Your task to perform on an android device: turn notification dots off Image 0: 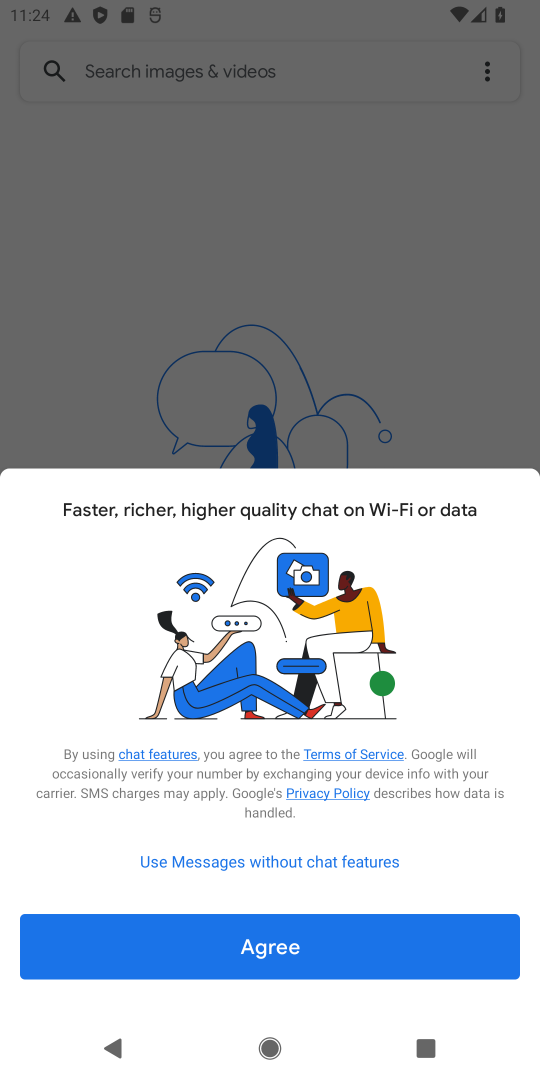
Step 0: press home button
Your task to perform on an android device: turn notification dots off Image 1: 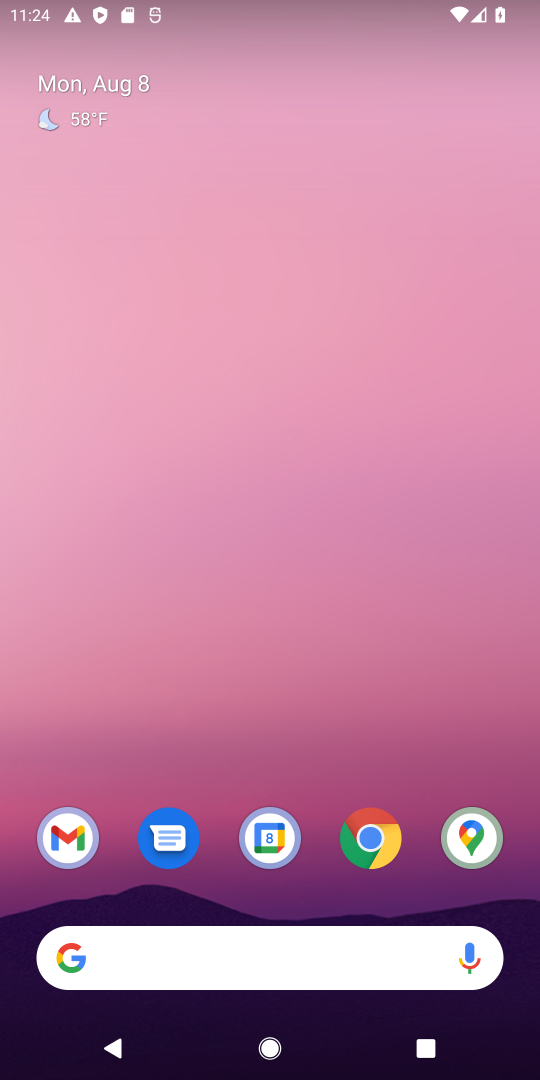
Step 1: drag from (320, 359) to (351, 113)
Your task to perform on an android device: turn notification dots off Image 2: 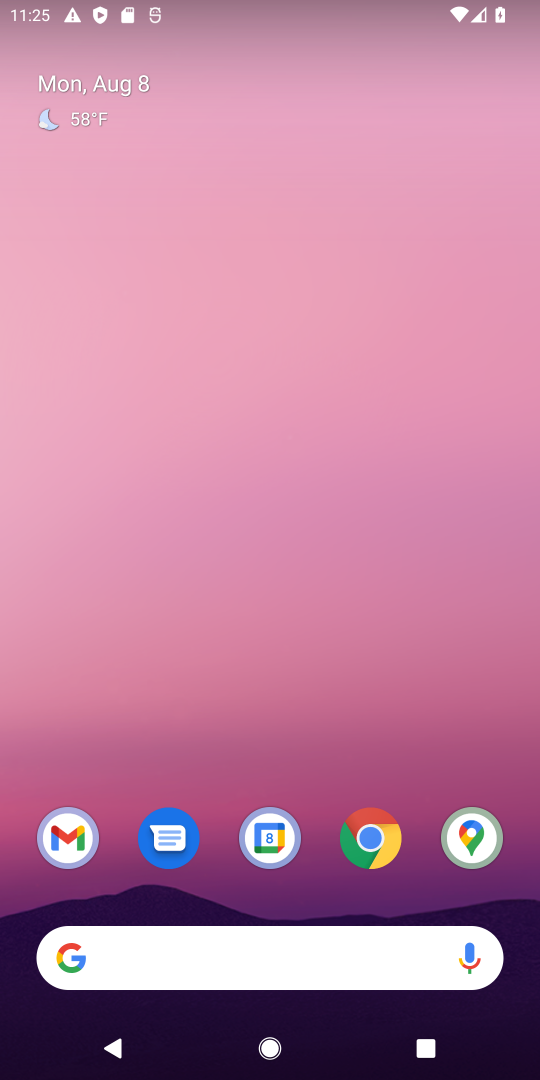
Step 2: drag from (293, 674) to (512, 342)
Your task to perform on an android device: turn notification dots off Image 3: 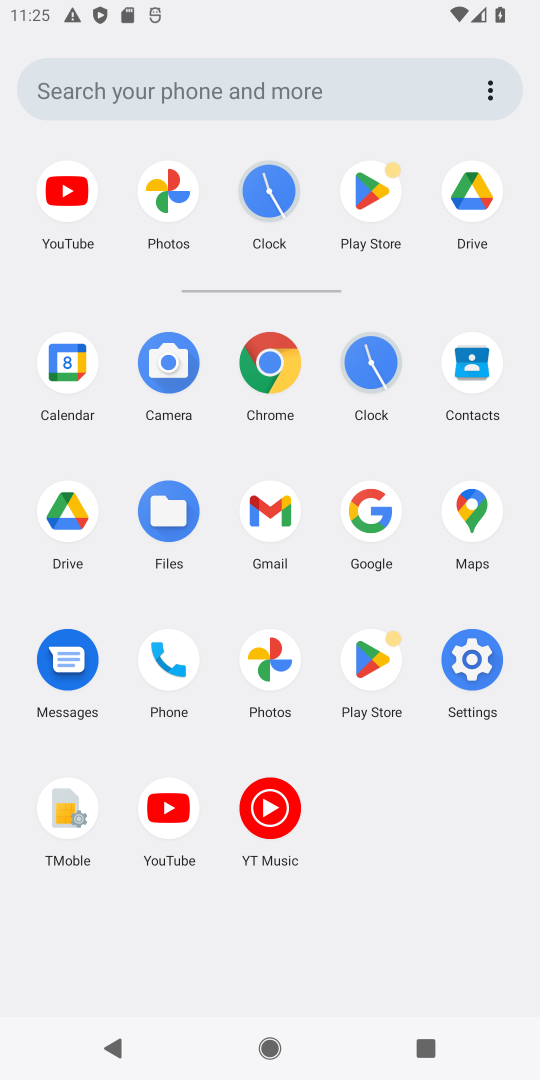
Step 3: click (473, 658)
Your task to perform on an android device: turn notification dots off Image 4: 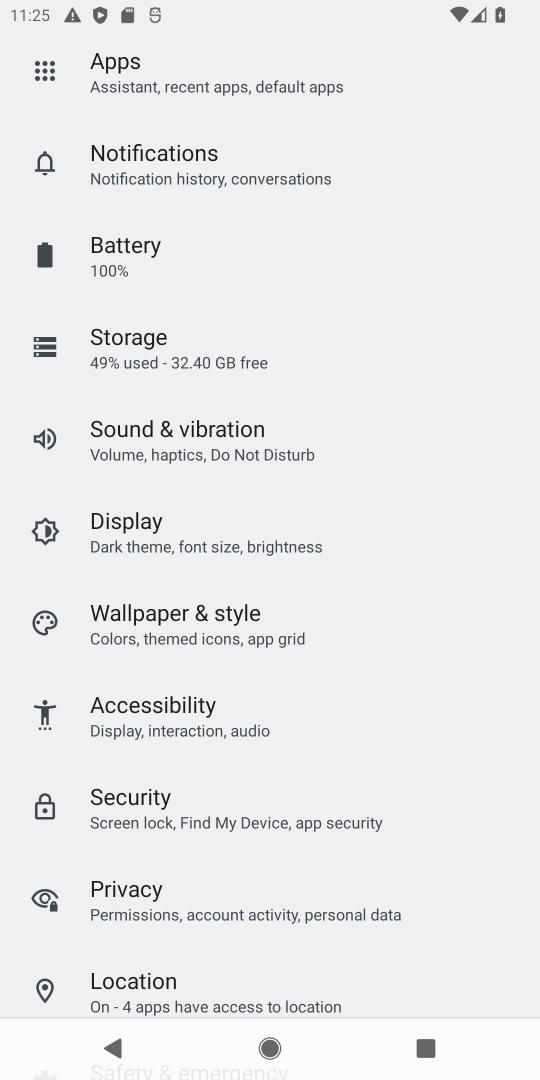
Step 4: click (159, 171)
Your task to perform on an android device: turn notification dots off Image 5: 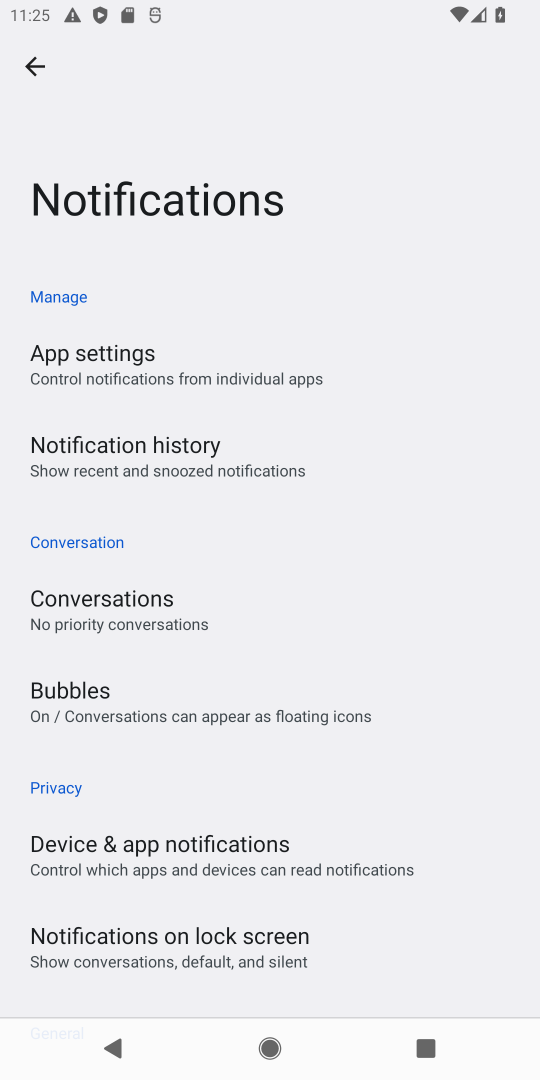
Step 5: drag from (167, 774) to (174, 374)
Your task to perform on an android device: turn notification dots off Image 6: 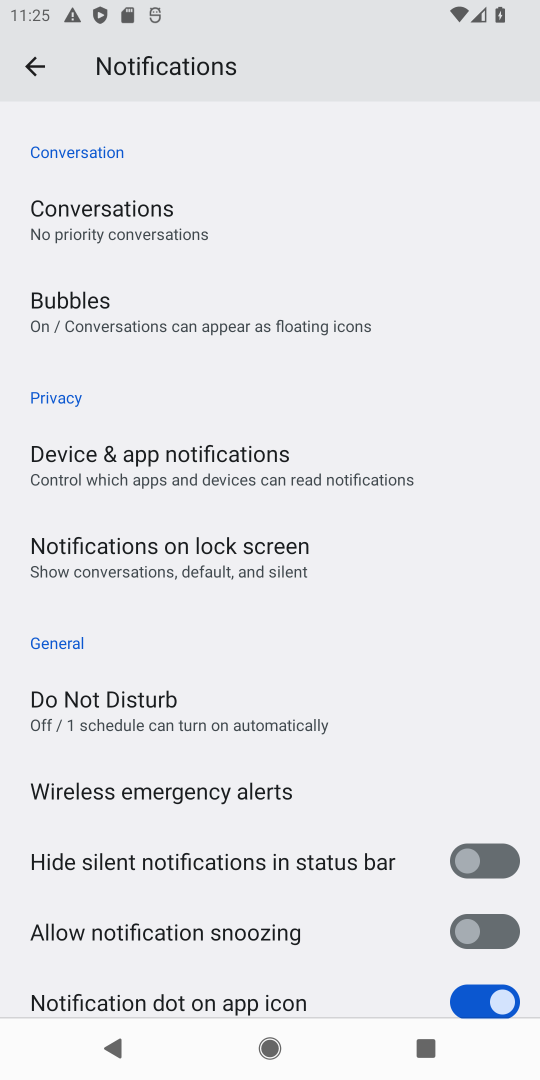
Step 6: click (471, 991)
Your task to perform on an android device: turn notification dots off Image 7: 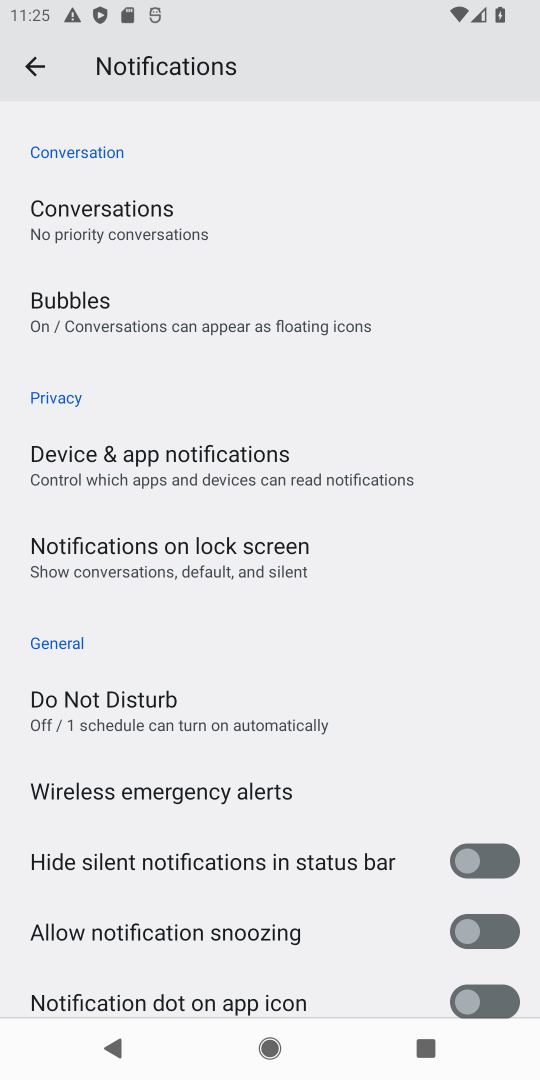
Step 7: task complete